Your task to perform on an android device: Open notification settings Image 0: 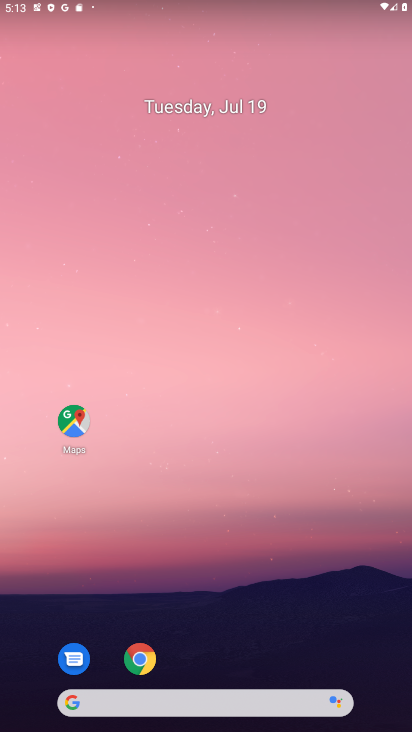
Step 0: drag from (249, 686) to (252, 207)
Your task to perform on an android device: Open notification settings Image 1: 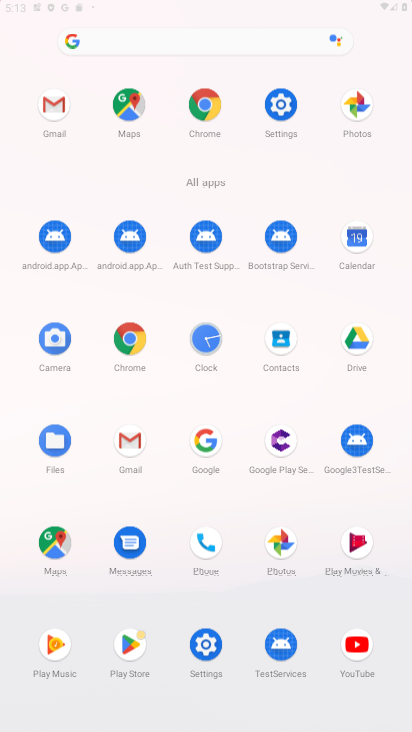
Step 1: drag from (218, 527) to (221, 71)
Your task to perform on an android device: Open notification settings Image 2: 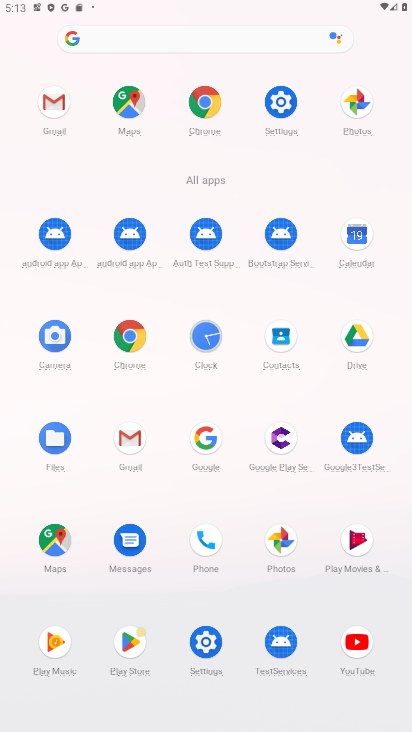
Step 2: click (281, 107)
Your task to perform on an android device: Open notification settings Image 3: 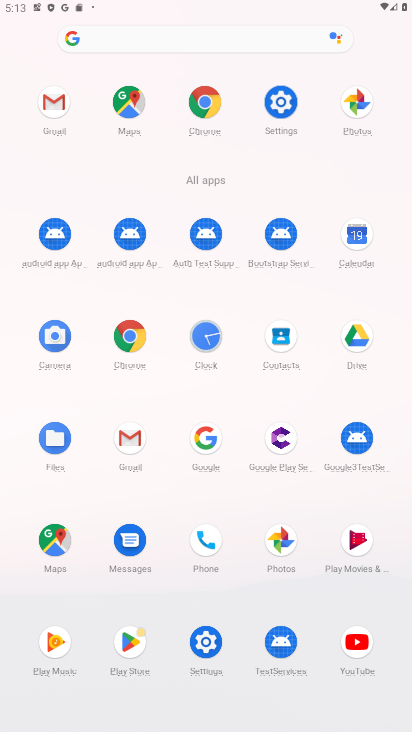
Step 3: click (281, 107)
Your task to perform on an android device: Open notification settings Image 4: 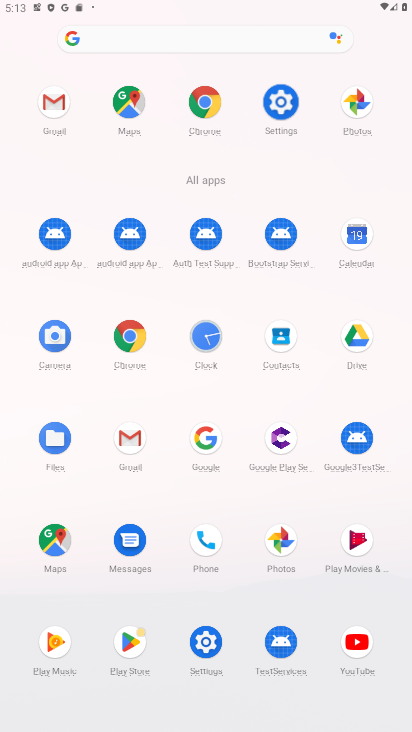
Step 4: click (281, 107)
Your task to perform on an android device: Open notification settings Image 5: 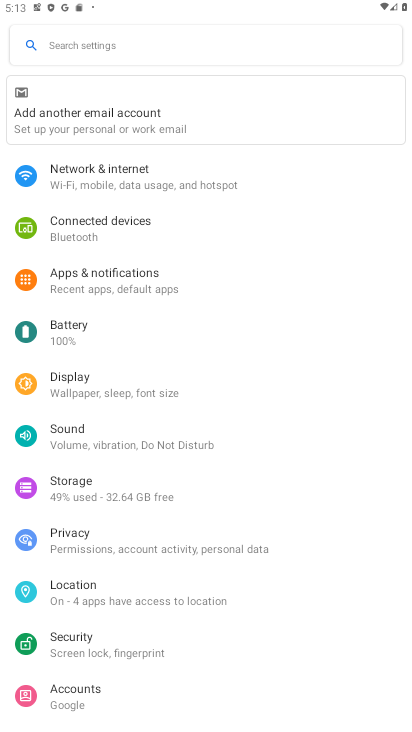
Step 5: click (90, 285)
Your task to perform on an android device: Open notification settings Image 6: 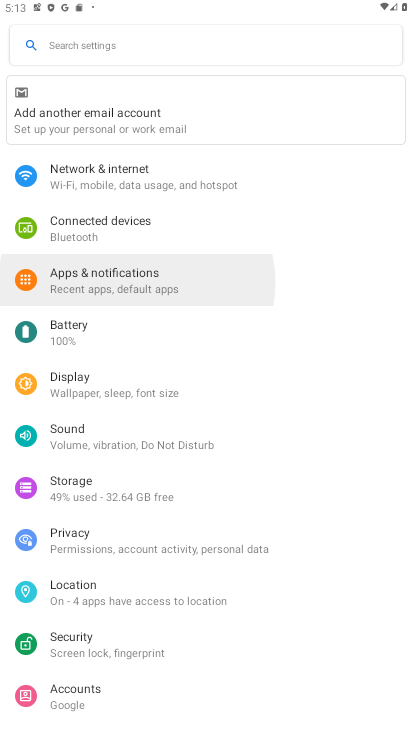
Step 6: click (90, 285)
Your task to perform on an android device: Open notification settings Image 7: 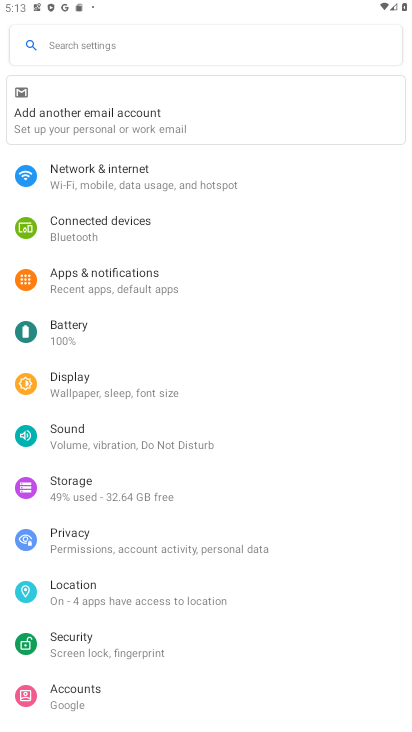
Step 7: click (91, 284)
Your task to perform on an android device: Open notification settings Image 8: 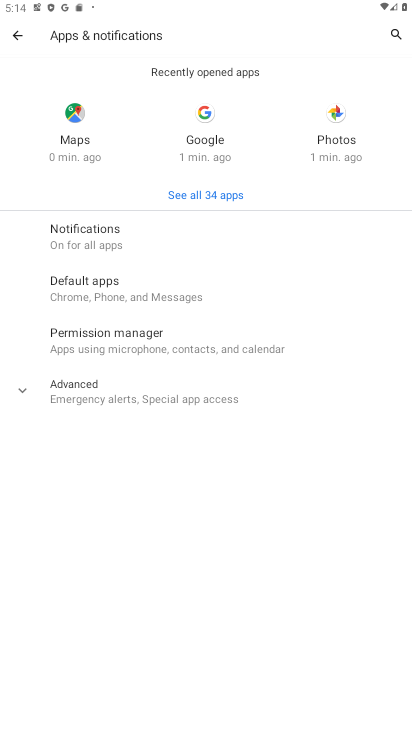
Step 8: click (73, 237)
Your task to perform on an android device: Open notification settings Image 9: 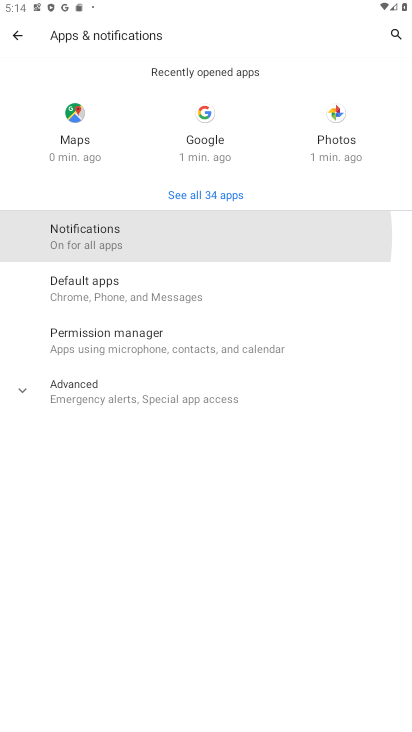
Step 9: click (74, 237)
Your task to perform on an android device: Open notification settings Image 10: 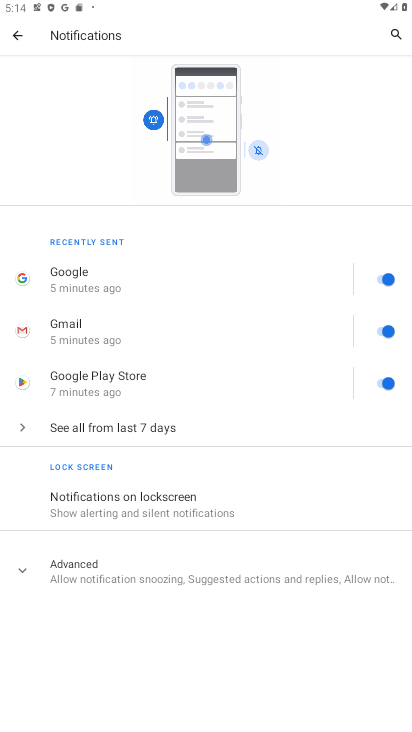
Step 10: click (103, 574)
Your task to perform on an android device: Open notification settings Image 11: 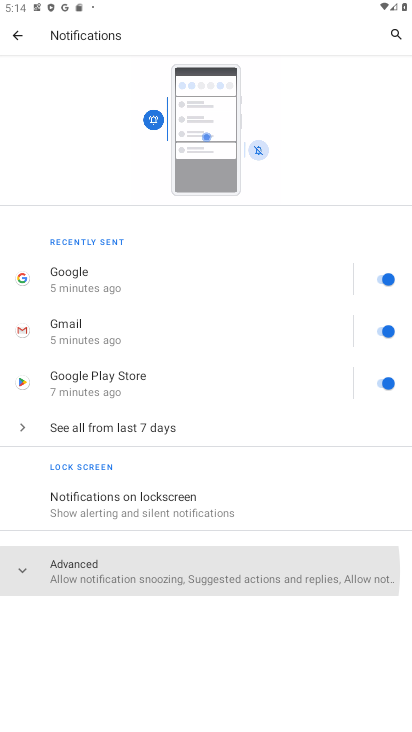
Step 11: click (103, 574)
Your task to perform on an android device: Open notification settings Image 12: 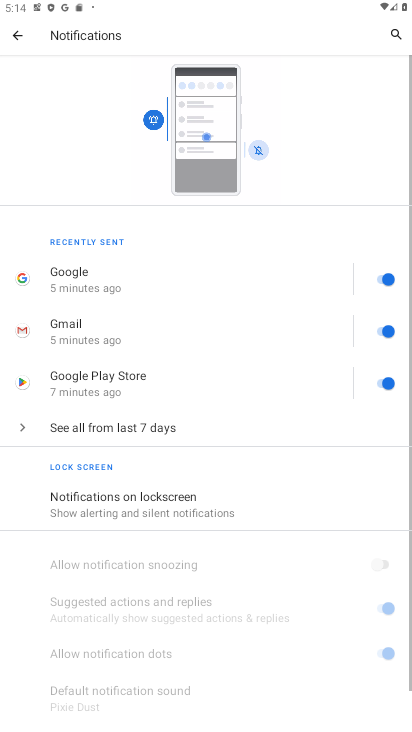
Step 12: click (106, 574)
Your task to perform on an android device: Open notification settings Image 13: 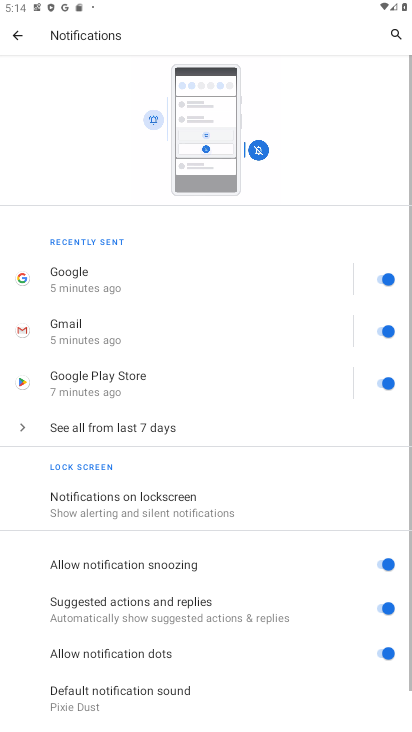
Step 13: task complete